Your task to perform on an android device: turn off notifications in google photos Image 0: 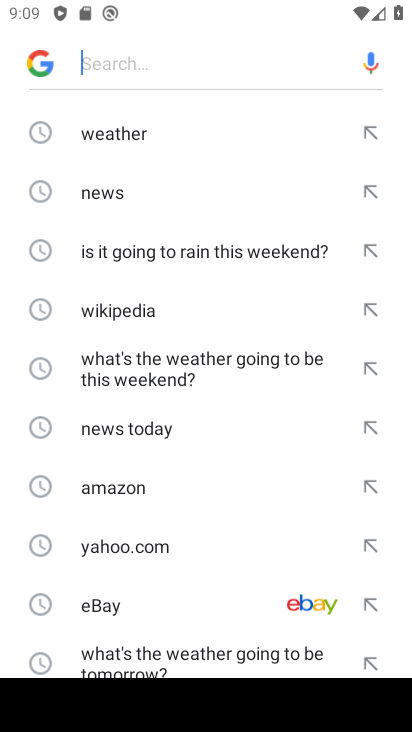
Step 0: press home button
Your task to perform on an android device: turn off notifications in google photos Image 1: 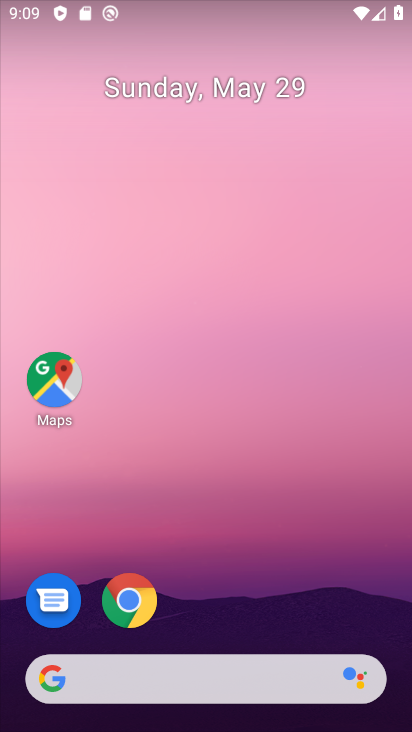
Step 1: drag from (207, 619) to (280, 105)
Your task to perform on an android device: turn off notifications in google photos Image 2: 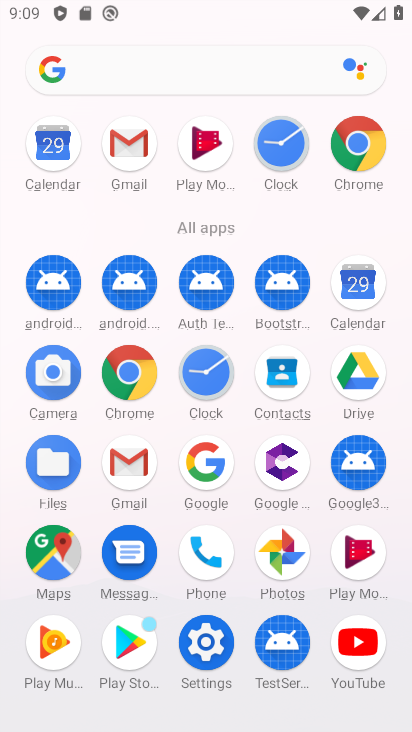
Step 2: click (283, 648)
Your task to perform on an android device: turn off notifications in google photos Image 3: 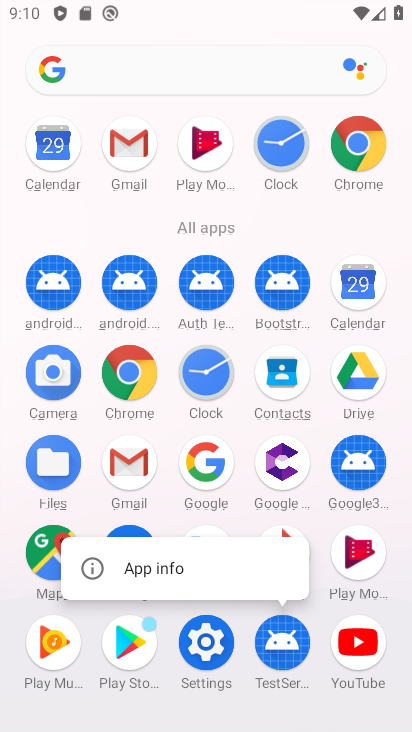
Step 3: click (392, 433)
Your task to perform on an android device: turn off notifications in google photos Image 4: 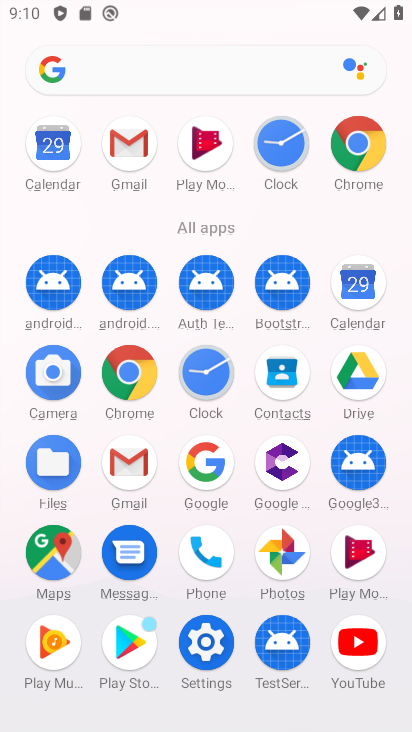
Step 4: click (286, 556)
Your task to perform on an android device: turn off notifications in google photos Image 5: 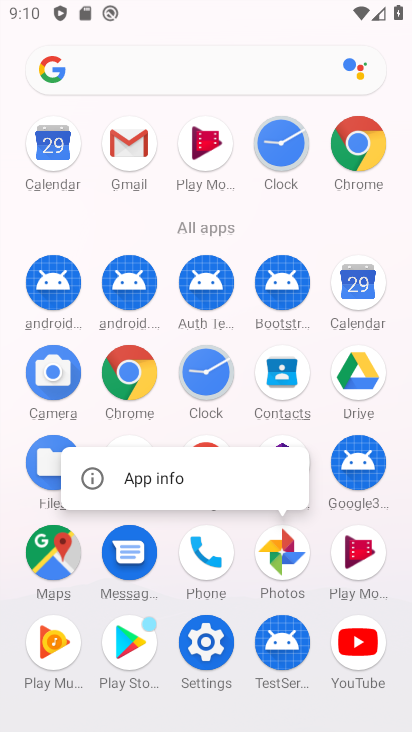
Step 5: click (199, 471)
Your task to perform on an android device: turn off notifications in google photos Image 6: 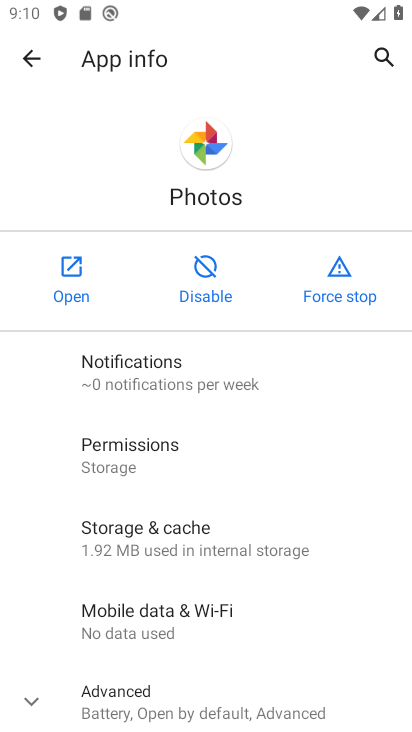
Step 6: click (159, 369)
Your task to perform on an android device: turn off notifications in google photos Image 7: 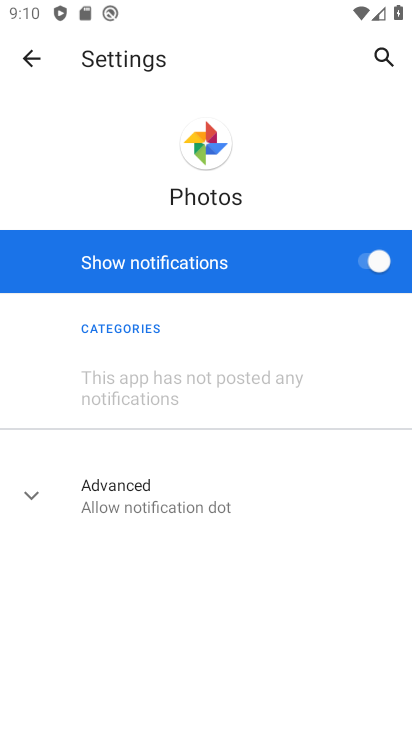
Step 7: click (367, 261)
Your task to perform on an android device: turn off notifications in google photos Image 8: 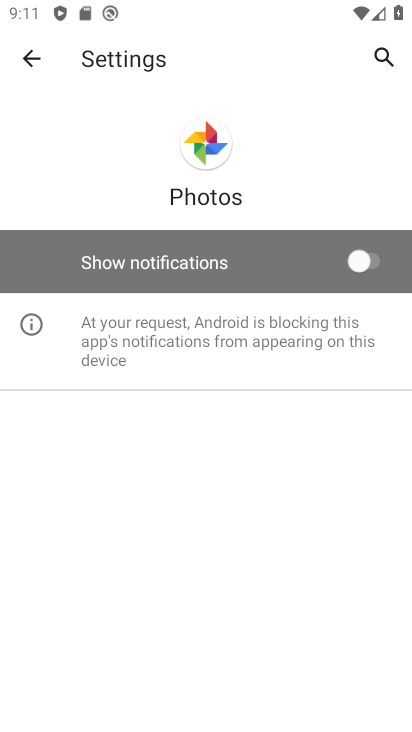
Step 8: task complete